Your task to perform on an android device: Open Google Maps Image 0: 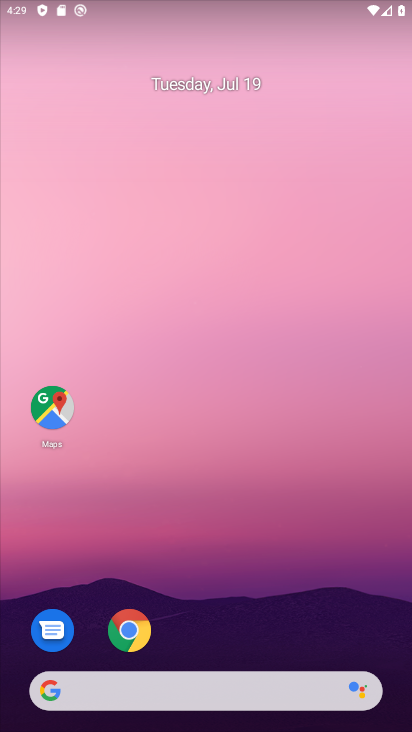
Step 0: click (165, 223)
Your task to perform on an android device: Open Google Maps Image 1: 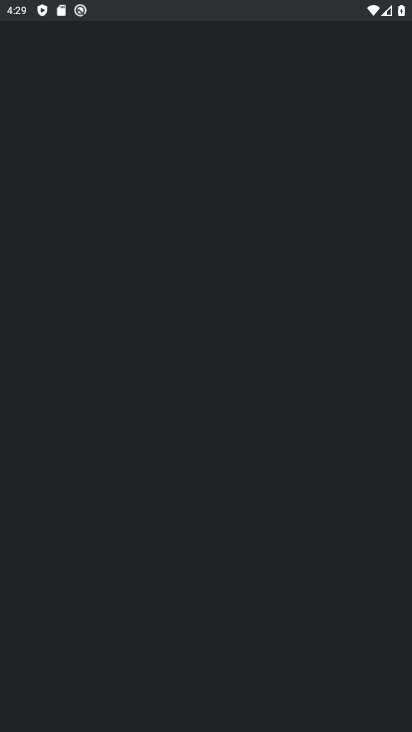
Step 1: drag from (236, 520) to (162, 89)
Your task to perform on an android device: Open Google Maps Image 2: 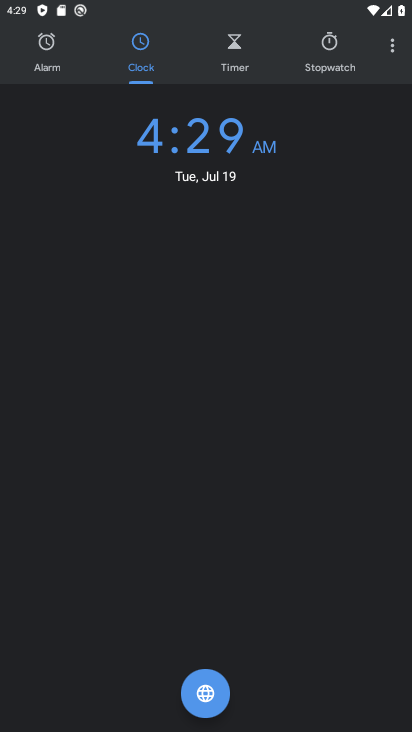
Step 2: press back button
Your task to perform on an android device: Open Google Maps Image 3: 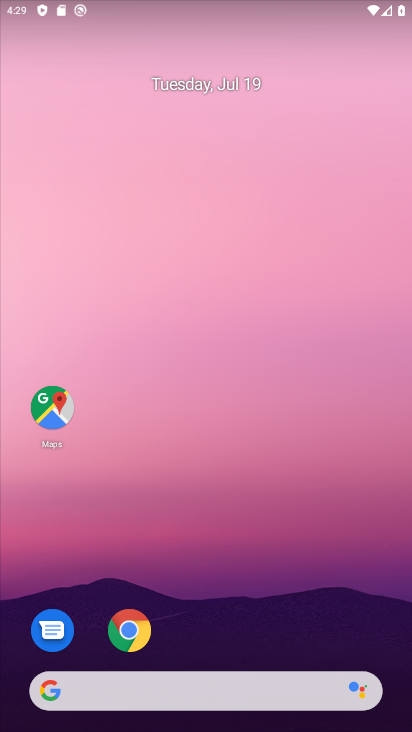
Step 3: drag from (170, 659) to (159, 146)
Your task to perform on an android device: Open Google Maps Image 4: 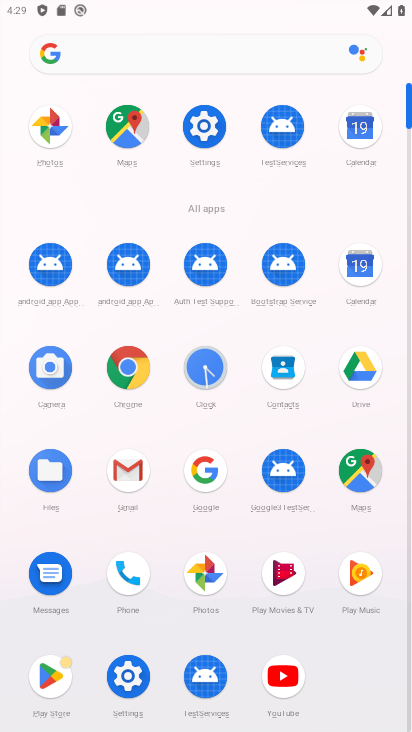
Step 4: click (359, 474)
Your task to perform on an android device: Open Google Maps Image 5: 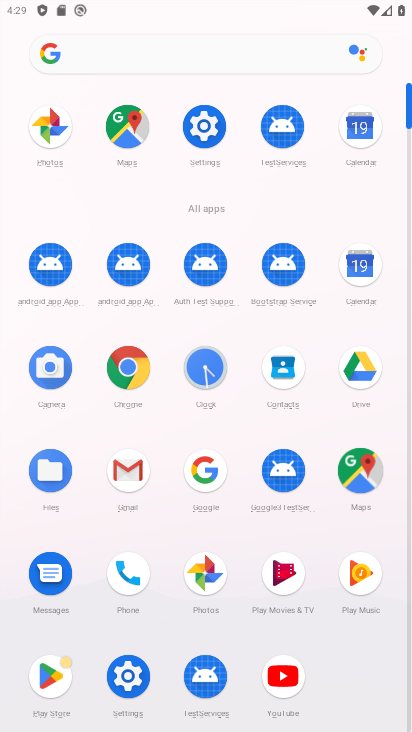
Step 5: click (357, 475)
Your task to perform on an android device: Open Google Maps Image 6: 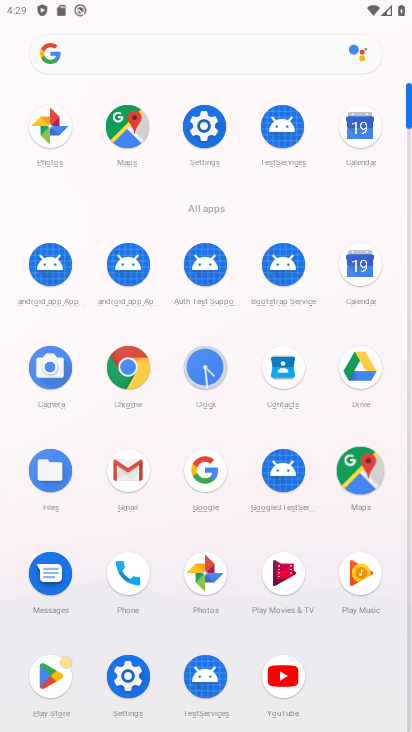
Step 6: click (357, 475)
Your task to perform on an android device: Open Google Maps Image 7: 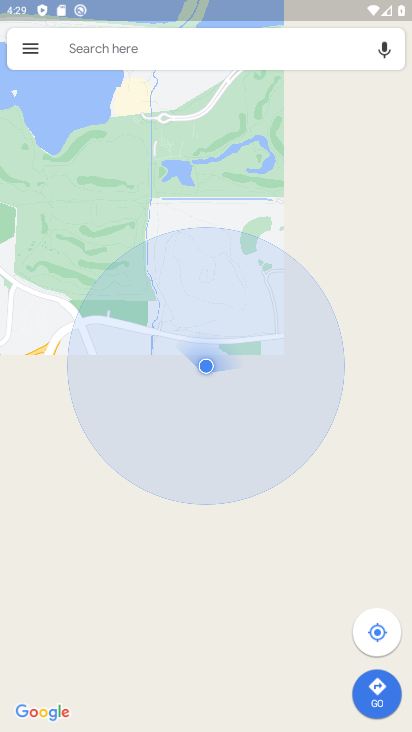
Step 7: task complete